Your task to perform on an android device: clear all cookies in the chrome app Image 0: 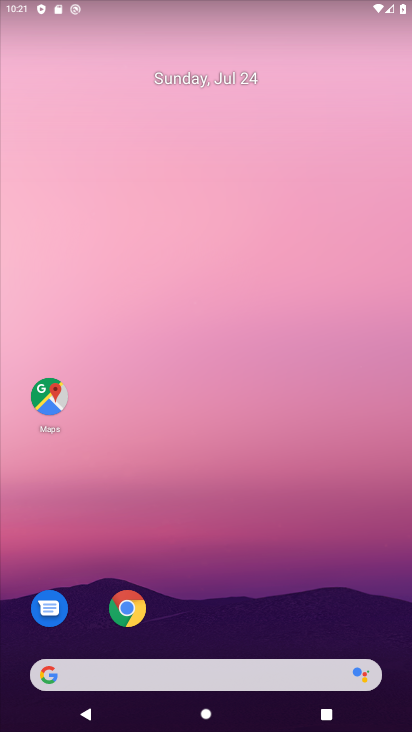
Step 0: click (127, 605)
Your task to perform on an android device: clear all cookies in the chrome app Image 1: 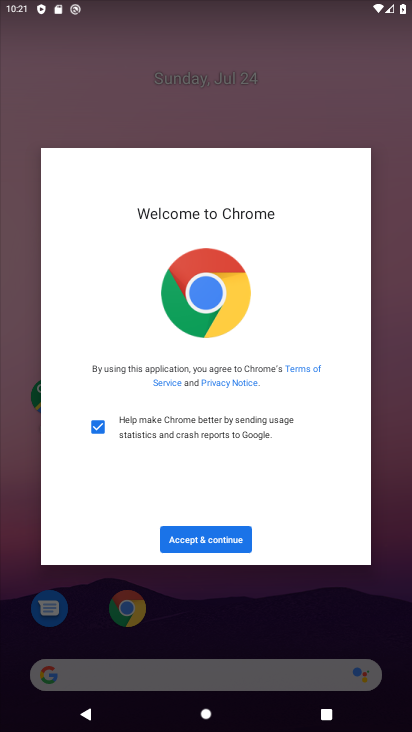
Step 1: click (198, 535)
Your task to perform on an android device: clear all cookies in the chrome app Image 2: 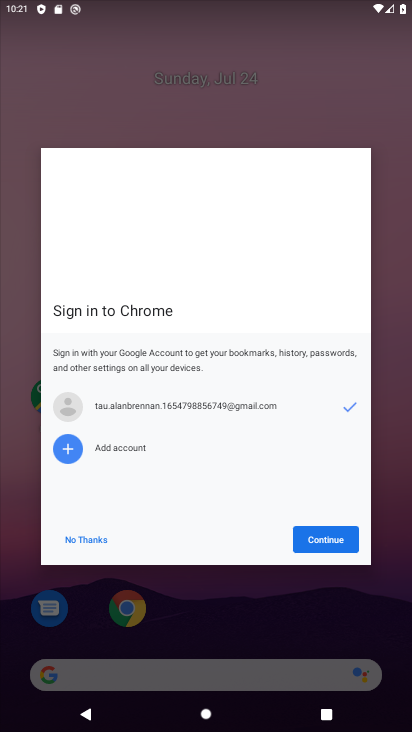
Step 2: click (310, 537)
Your task to perform on an android device: clear all cookies in the chrome app Image 3: 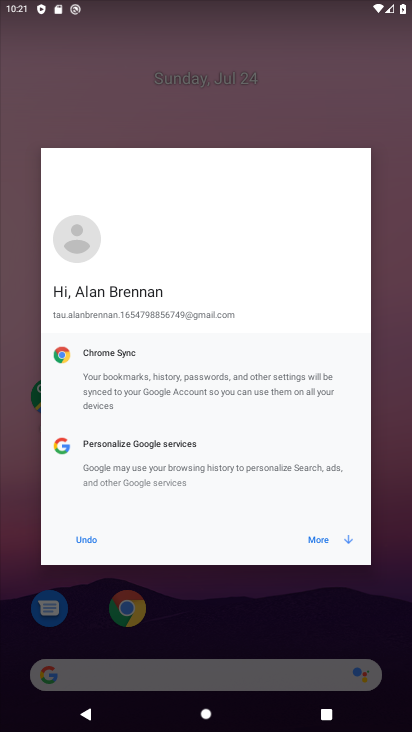
Step 3: click (313, 533)
Your task to perform on an android device: clear all cookies in the chrome app Image 4: 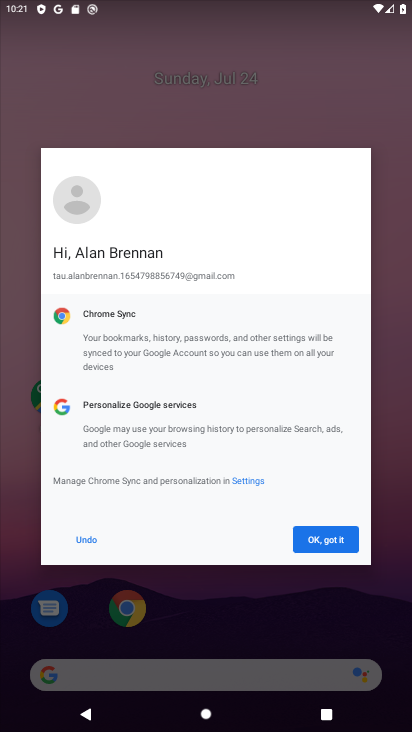
Step 4: click (313, 533)
Your task to perform on an android device: clear all cookies in the chrome app Image 5: 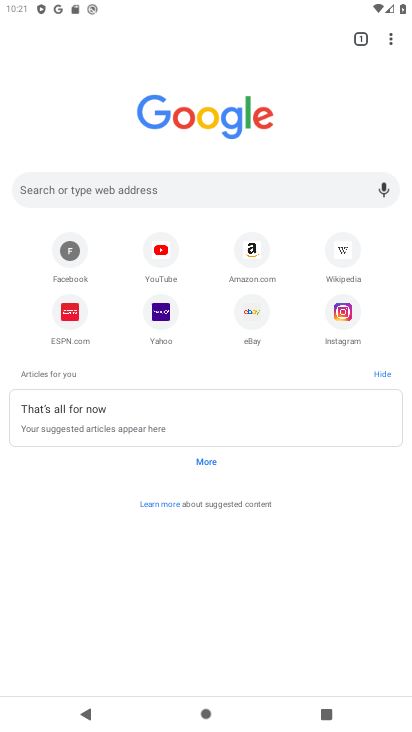
Step 5: click (390, 37)
Your task to perform on an android device: clear all cookies in the chrome app Image 6: 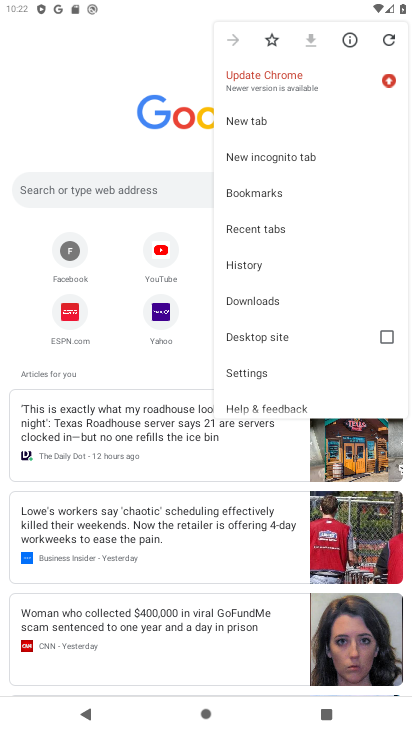
Step 6: click (268, 366)
Your task to perform on an android device: clear all cookies in the chrome app Image 7: 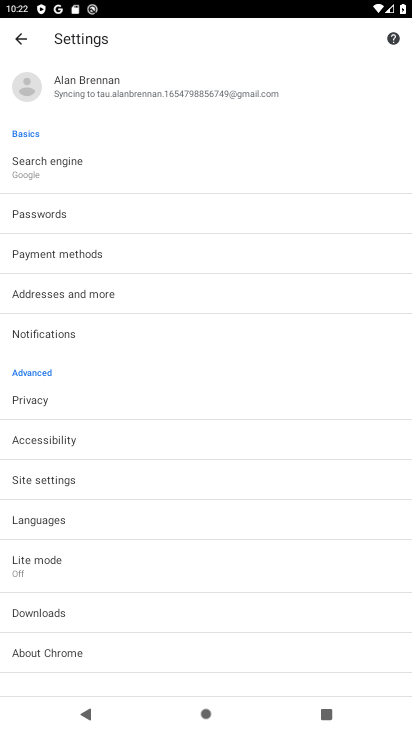
Step 7: click (25, 33)
Your task to perform on an android device: clear all cookies in the chrome app Image 8: 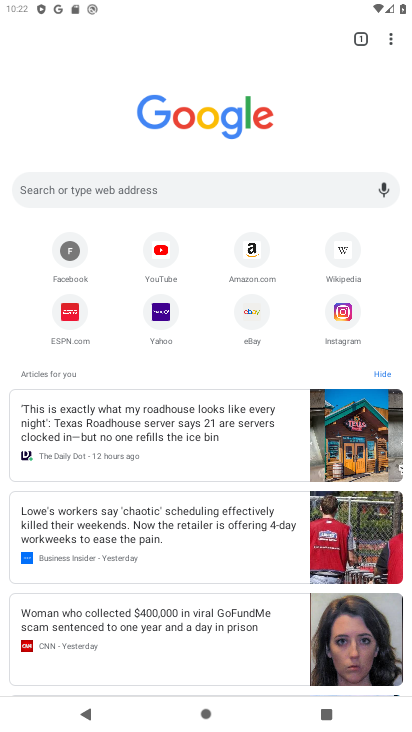
Step 8: click (389, 37)
Your task to perform on an android device: clear all cookies in the chrome app Image 9: 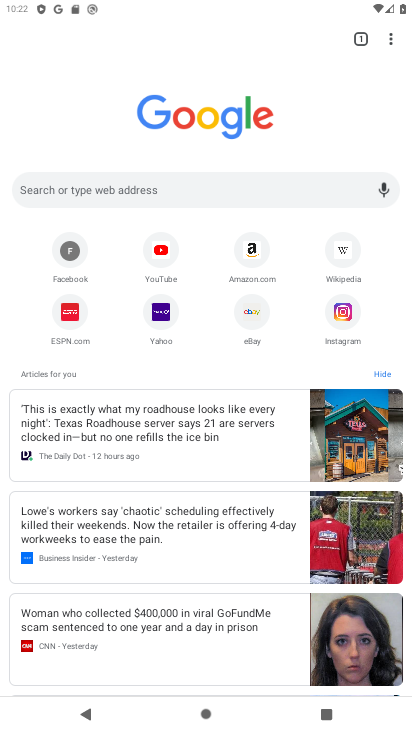
Step 9: click (391, 34)
Your task to perform on an android device: clear all cookies in the chrome app Image 10: 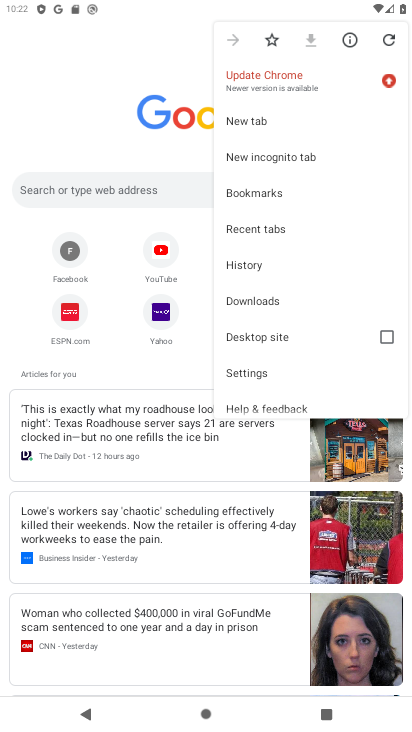
Step 10: click (266, 264)
Your task to perform on an android device: clear all cookies in the chrome app Image 11: 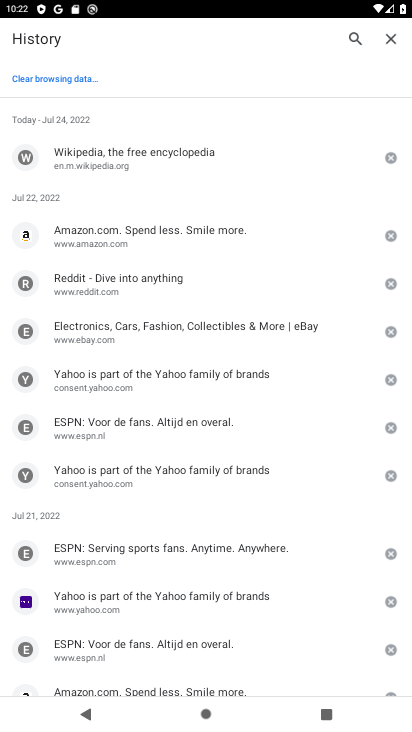
Step 11: click (71, 76)
Your task to perform on an android device: clear all cookies in the chrome app Image 12: 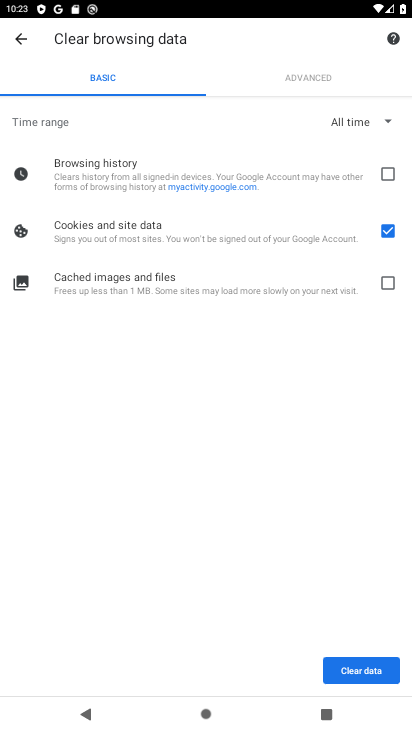
Step 12: click (386, 672)
Your task to perform on an android device: clear all cookies in the chrome app Image 13: 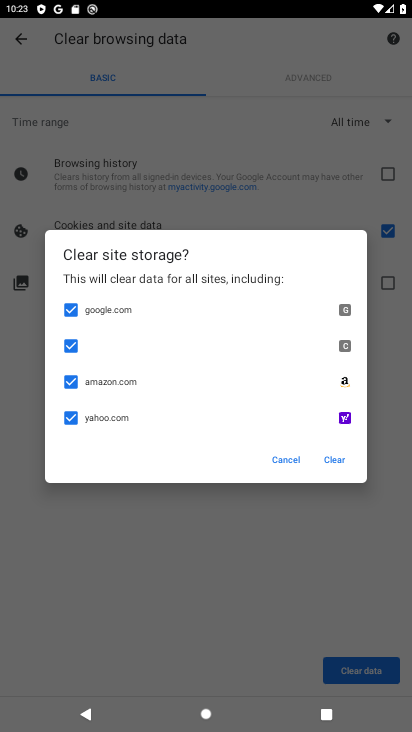
Step 13: click (331, 455)
Your task to perform on an android device: clear all cookies in the chrome app Image 14: 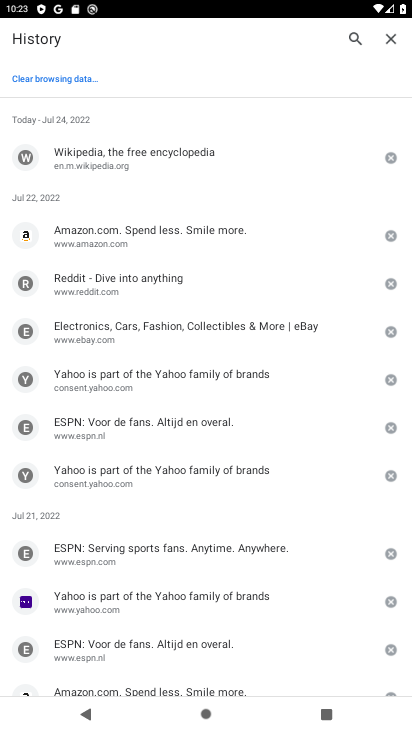
Step 14: task complete